Your task to perform on an android device: choose inbox layout in the gmail app Image 0: 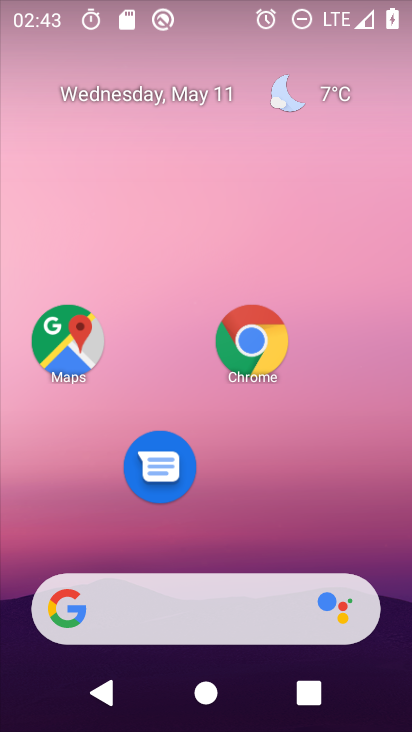
Step 0: drag from (129, 593) to (236, 183)
Your task to perform on an android device: choose inbox layout in the gmail app Image 1: 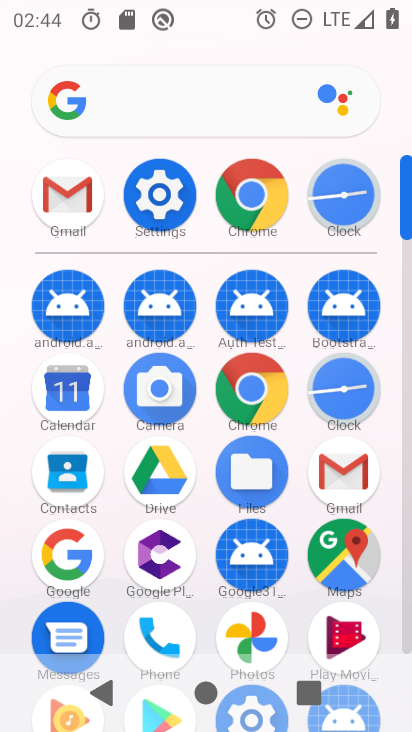
Step 1: click (66, 205)
Your task to perform on an android device: choose inbox layout in the gmail app Image 2: 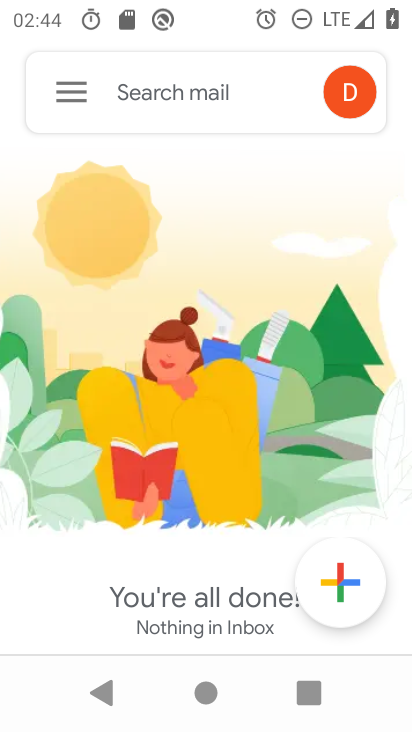
Step 2: click (73, 89)
Your task to perform on an android device: choose inbox layout in the gmail app Image 3: 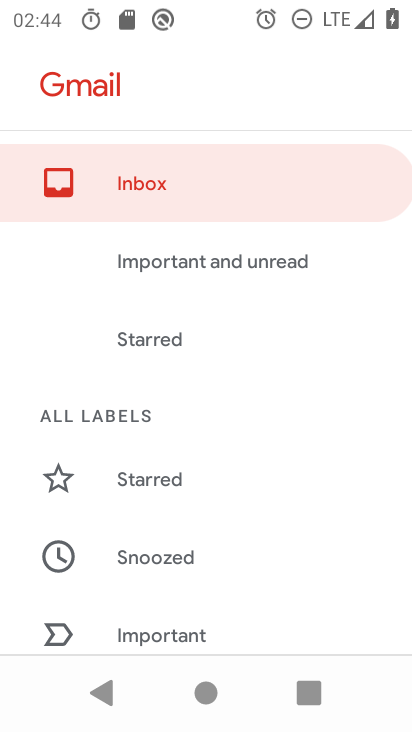
Step 3: drag from (223, 623) to (326, 264)
Your task to perform on an android device: choose inbox layout in the gmail app Image 4: 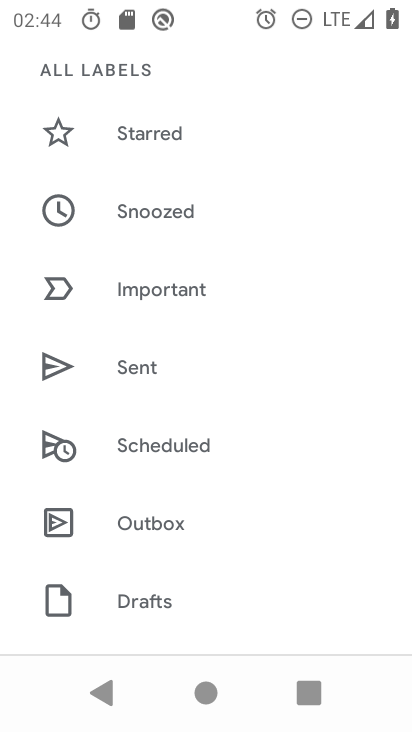
Step 4: drag from (244, 523) to (303, 289)
Your task to perform on an android device: choose inbox layout in the gmail app Image 5: 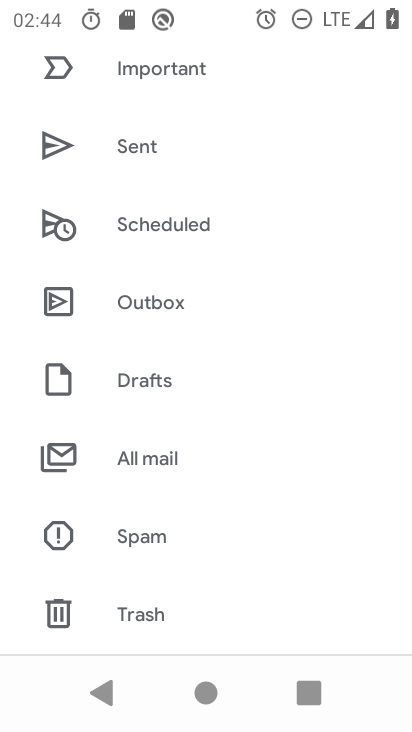
Step 5: drag from (228, 583) to (379, 73)
Your task to perform on an android device: choose inbox layout in the gmail app Image 6: 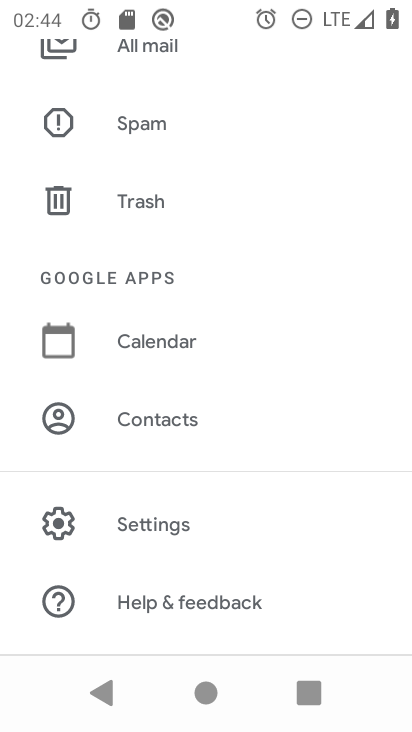
Step 6: click (154, 530)
Your task to perform on an android device: choose inbox layout in the gmail app Image 7: 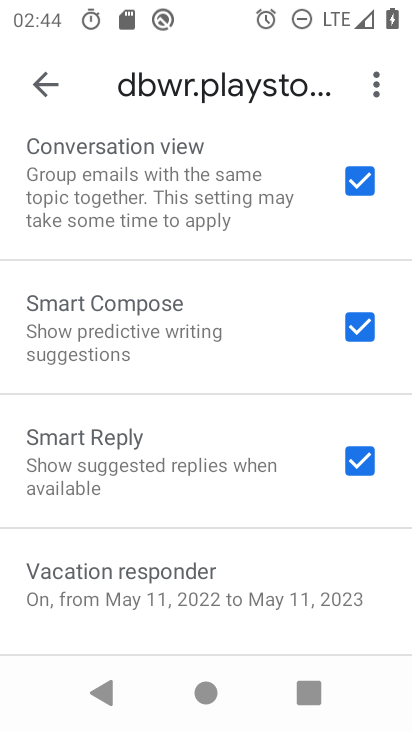
Step 7: drag from (205, 143) to (123, 642)
Your task to perform on an android device: choose inbox layout in the gmail app Image 8: 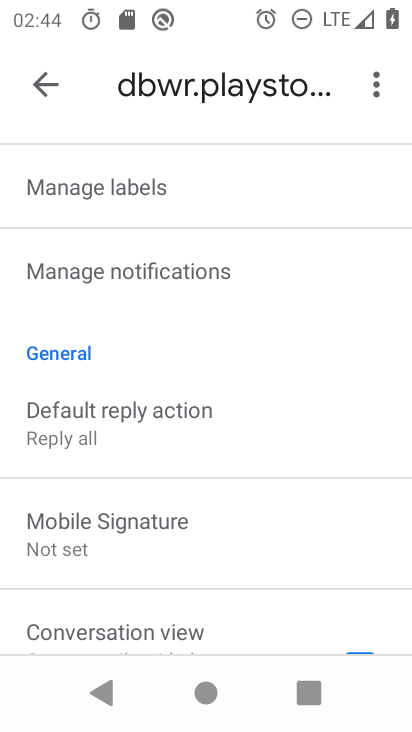
Step 8: drag from (228, 243) to (157, 689)
Your task to perform on an android device: choose inbox layout in the gmail app Image 9: 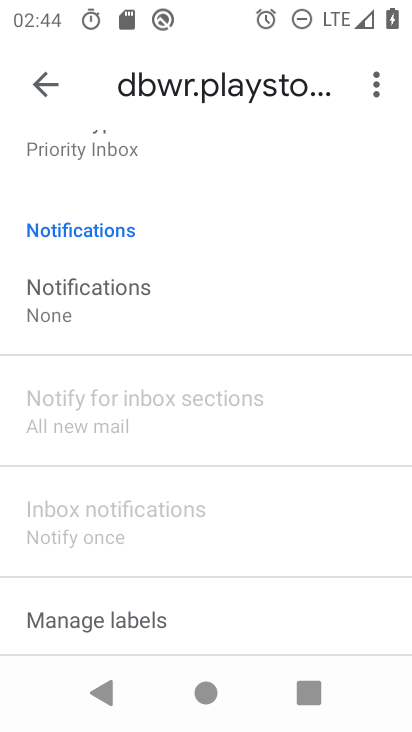
Step 9: drag from (198, 236) to (190, 568)
Your task to perform on an android device: choose inbox layout in the gmail app Image 10: 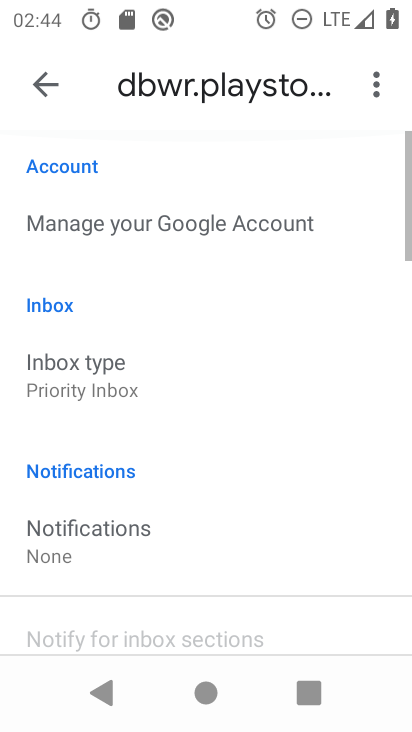
Step 10: click (103, 397)
Your task to perform on an android device: choose inbox layout in the gmail app Image 11: 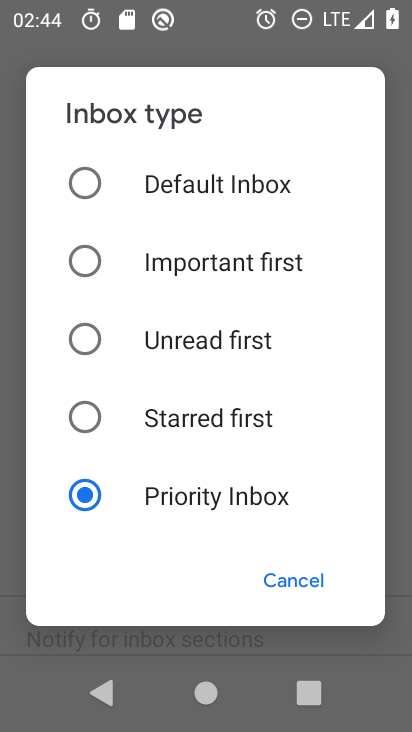
Step 11: click (88, 258)
Your task to perform on an android device: choose inbox layout in the gmail app Image 12: 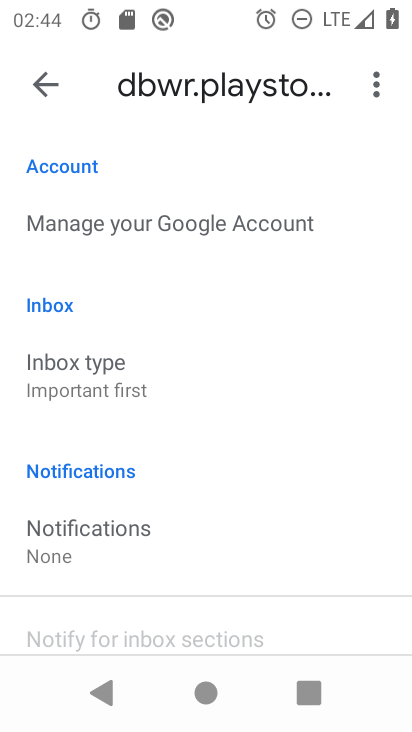
Step 12: task complete